Your task to perform on an android device: Open Chrome and go to the settings page Image 0: 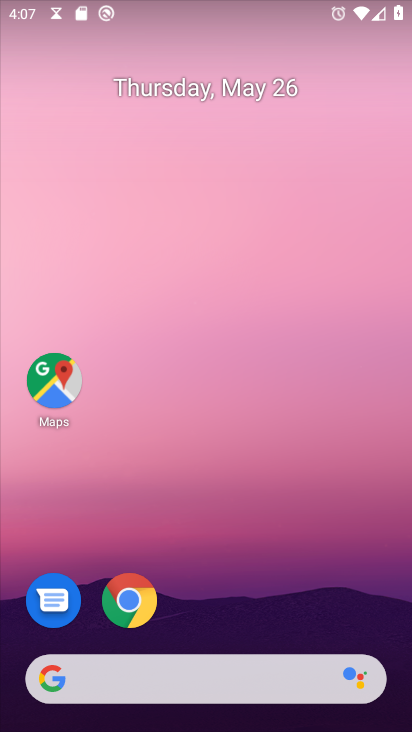
Step 0: click (135, 607)
Your task to perform on an android device: Open Chrome and go to the settings page Image 1: 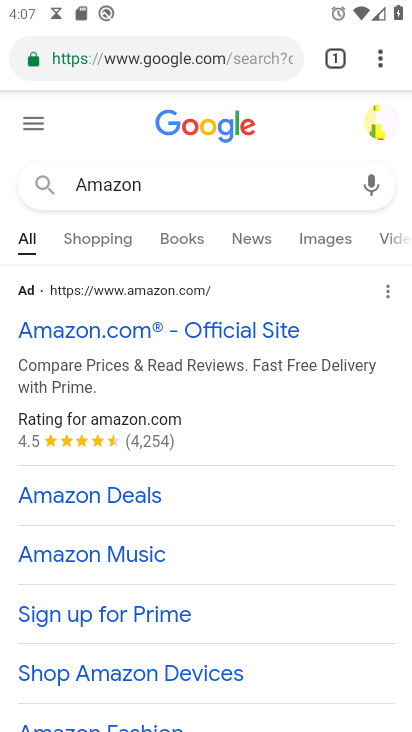
Step 1: click (137, 594)
Your task to perform on an android device: Open Chrome and go to the settings page Image 2: 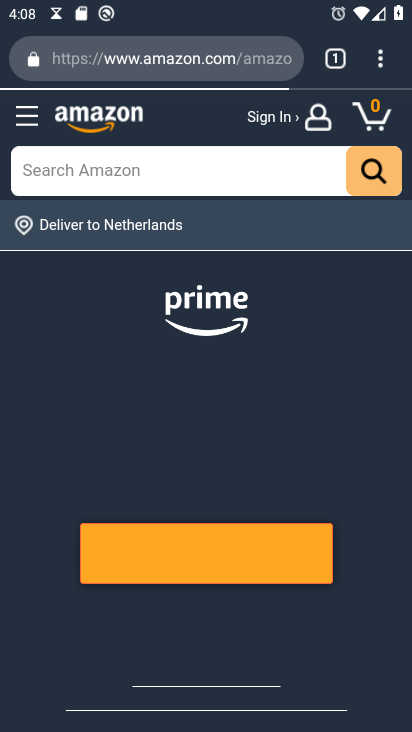
Step 2: click (381, 74)
Your task to perform on an android device: Open Chrome and go to the settings page Image 3: 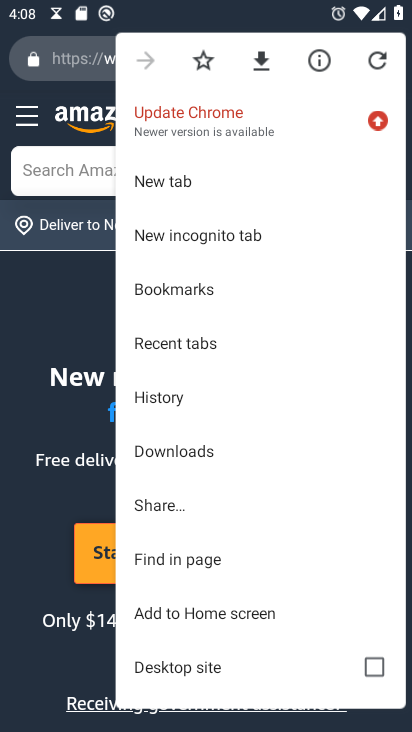
Step 3: drag from (181, 568) to (242, 300)
Your task to perform on an android device: Open Chrome and go to the settings page Image 4: 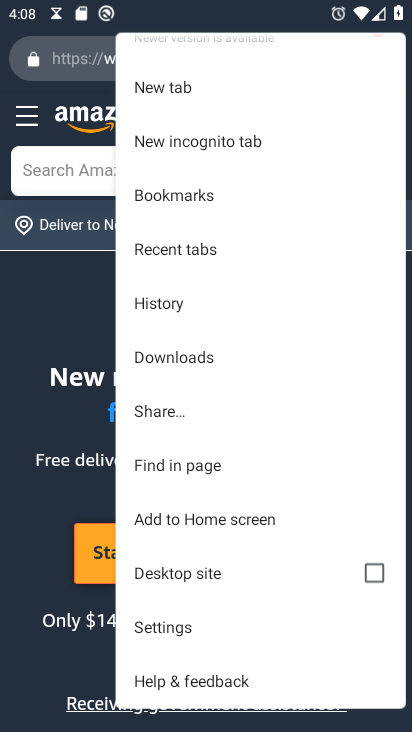
Step 4: click (188, 639)
Your task to perform on an android device: Open Chrome and go to the settings page Image 5: 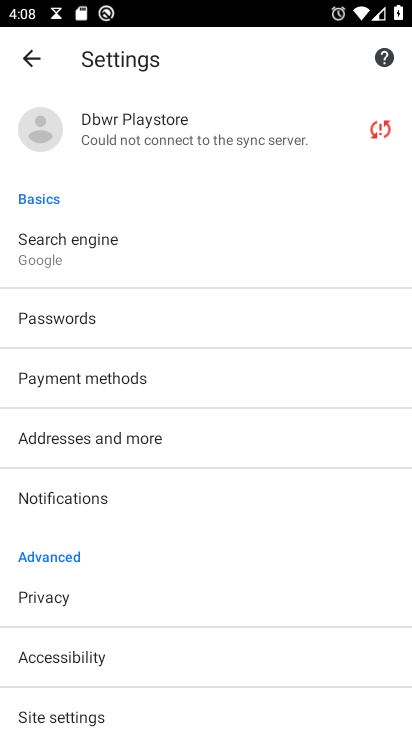
Step 5: task complete